Your task to perform on an android device: turn off javascript in the chrome app Image 0: 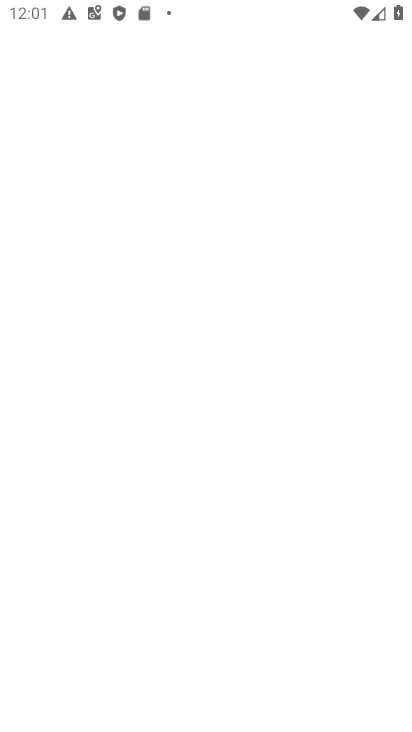
Step 0: press home button
Your task to perform on an android device: turn off javascript in the chrome app Image 1: 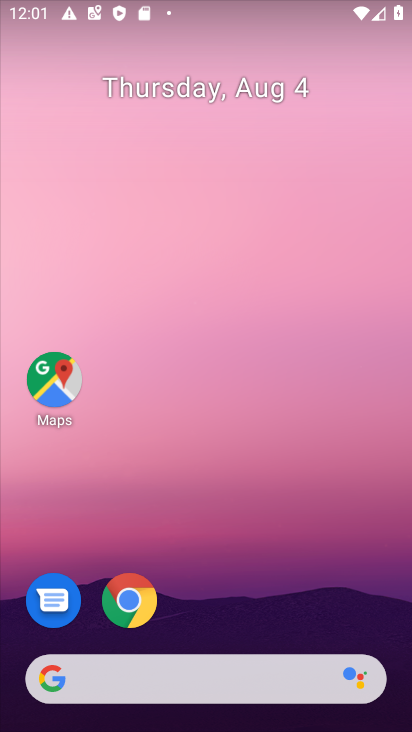
Step 1: click (129, 594)
Your task to perform on an android device: turn off javascript in the chrome app Image 2: 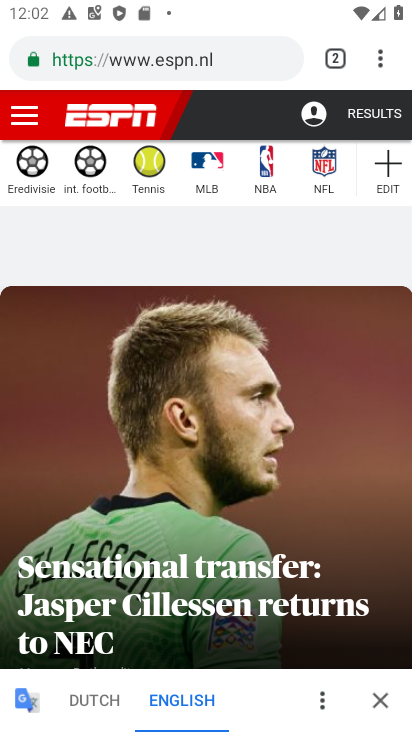
Step 2: drag from (383, 55) to (196, 639)
Your task to perform on an android device: turn off javascript in the chrome app Image 3: 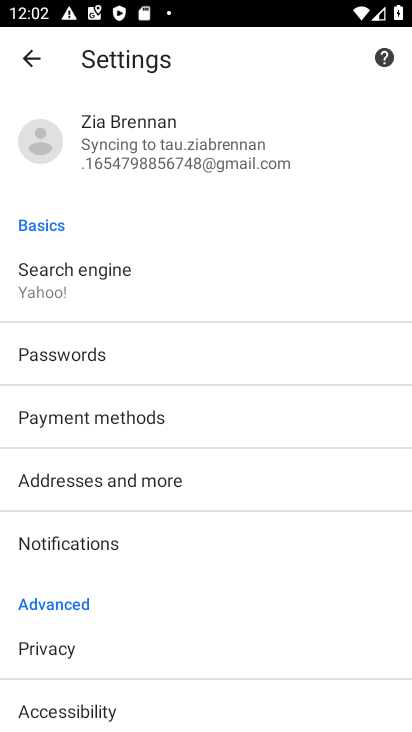
Step 3: drag from (137, 638) to (237, 224)
Your task to perform on an android device: turn off javascript in the chrome app Image 4: 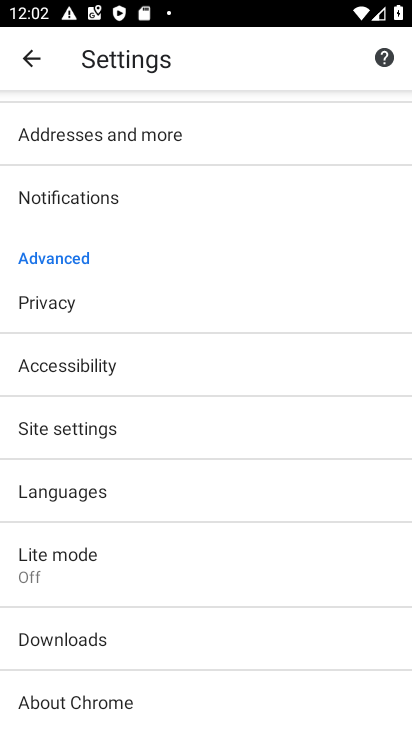
Step 4: click (95, 420)
Your task to perform on an android device: turn off javascript in the chrome app Image 5: 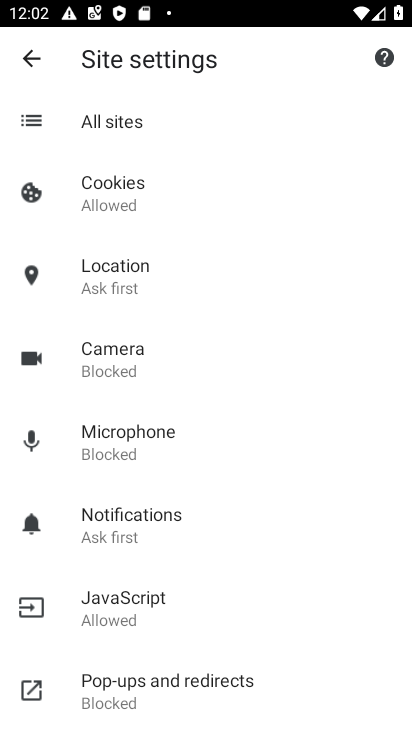
Step 5: click (144, 605)
Your task to perform on an android device: turn off javascript in the chrome app Image 6: 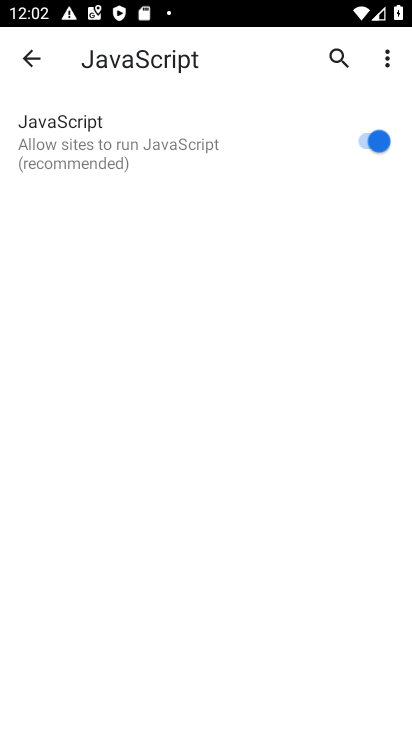
Step 6: click (366, 137)
Your task to perform on an android device: turn off javascript in the chrome app Image 7: 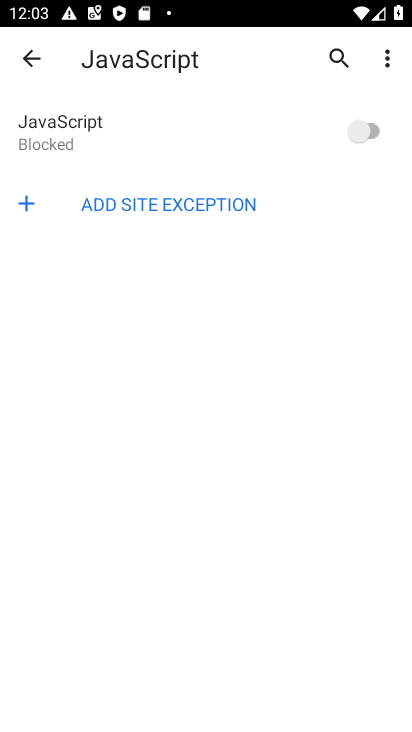
Step 7: task complete